Your task to perform on an android device: Open Yahoo.com Image 0: 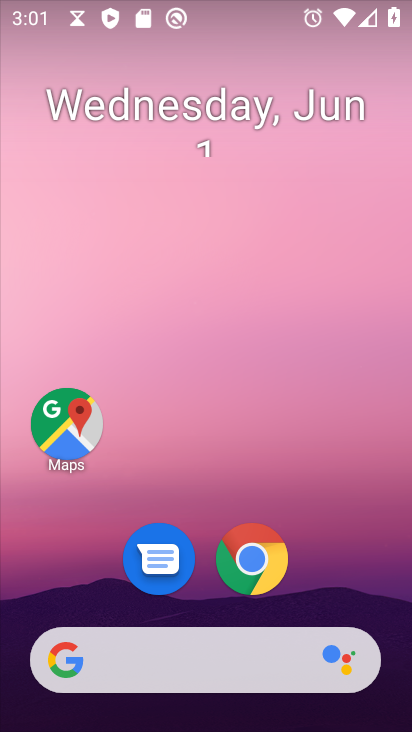
Step 0: click (237, 565)
Your task to perform on an android device: Open Yahoo.com Image 1: 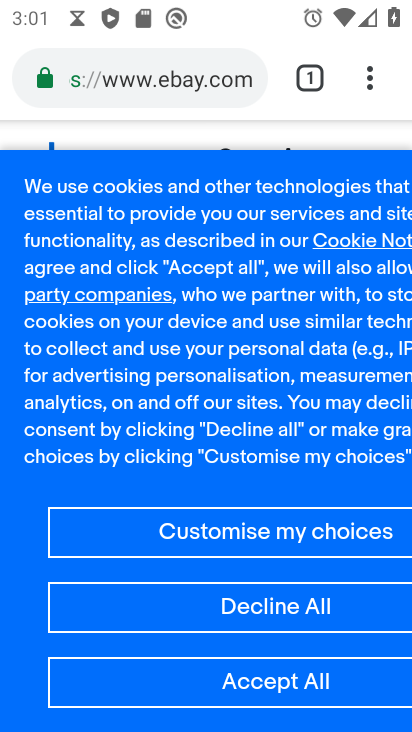
Step 1: click (180, 77)
Your task to perform on an android device: Open Yahoo.com Image 2: 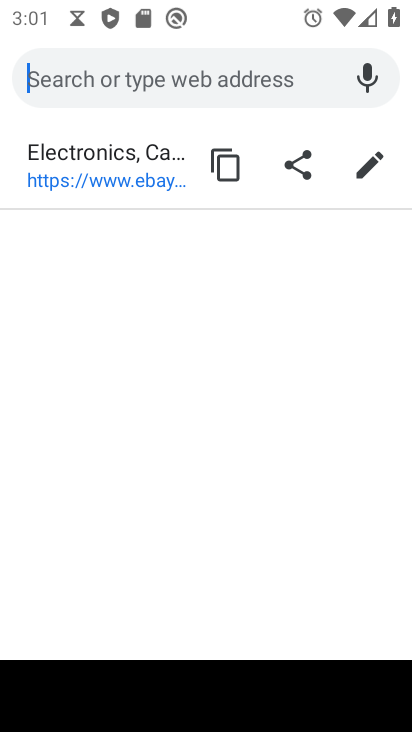
Step 2: type "yahoo.com"
Your task to perform on an android device: Open Yahoo.com Image 3: 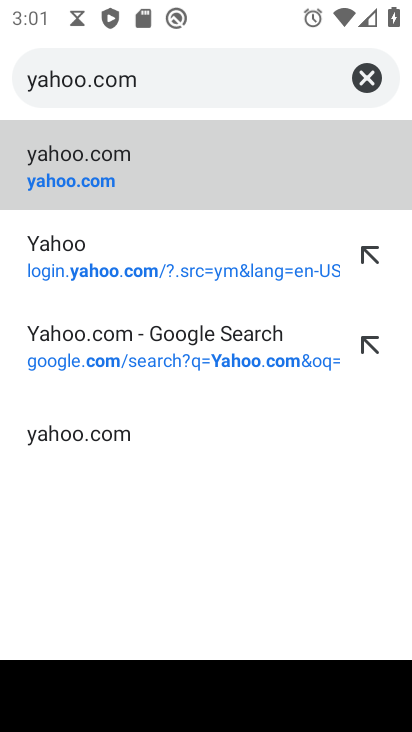
Step 3: click (85, 158)
Your task to perform on an android device: Open Yahoo.com Image 4: 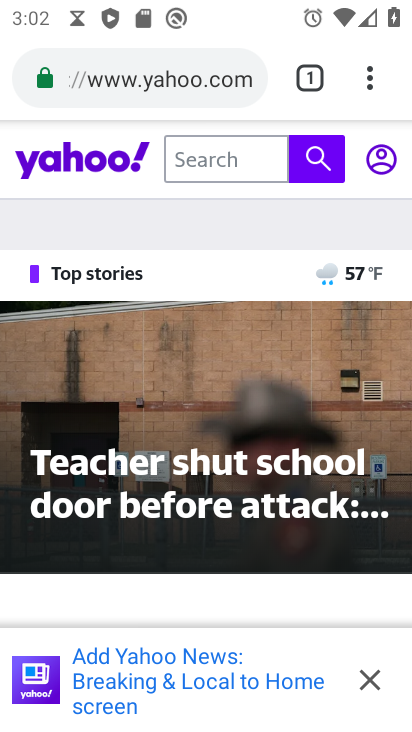
Step 4: task complete